Your task to perform on an android device: turn on the 24-hour format for clock Image 0: 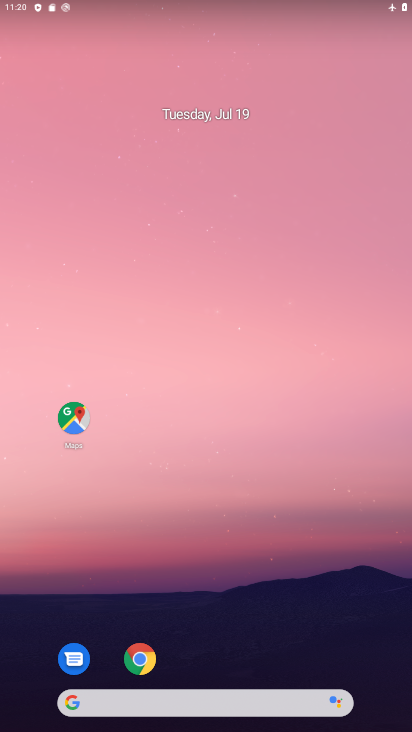
Step 0: drag from (259, 637) to (232, 204)
Your task to perform on an android device: turn on the 24-hour format for clock Image 1: 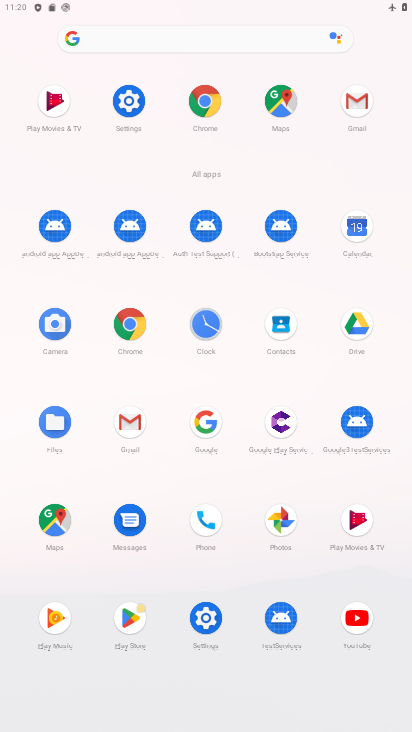
Step 1: click (206, 336)
Your task to perform on an android device: turn on the 24-hour format for clock Image 2: 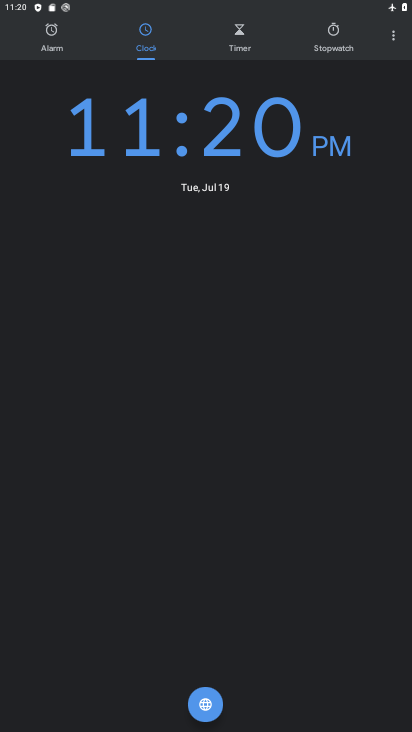
Step 2: click (399, 23)
Your task to perform on an android device: turn on the 24-hour format for clock Image 3: 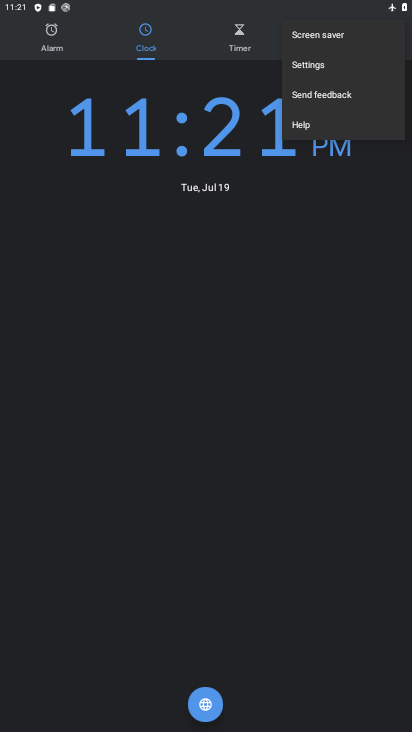
Step 3: click (315, 72)
Your task to perform on an android device: turn on the 24-hour format for clock Image 4: 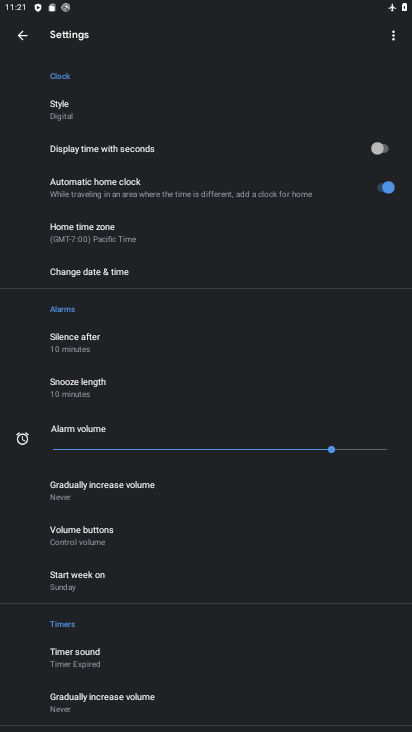
Step 4: click (104, 263)
Your task to perform on an android device: turn on the 24-hour format for clock Image 5: 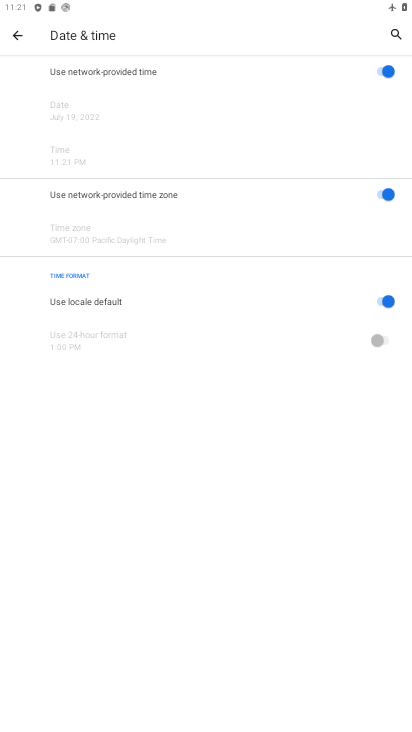
Step 5: click (386, 301)
Your task to perform on an android device: turn on the 24-hour format for clock Image 6: 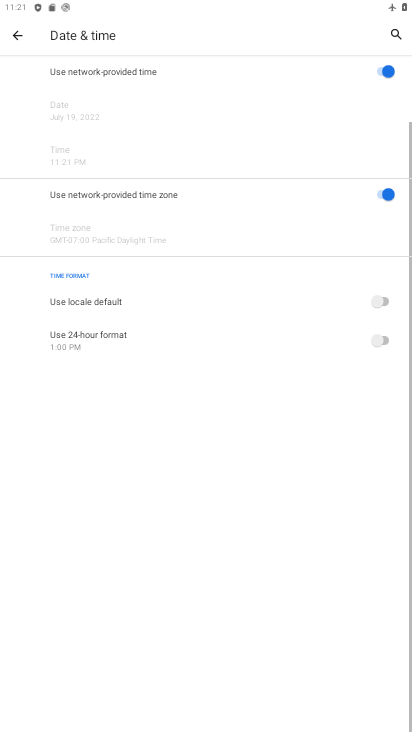
Step 6: click (383, 341)
Your task to perform on an android device: turn on the 24-hour format for clock Image 7: 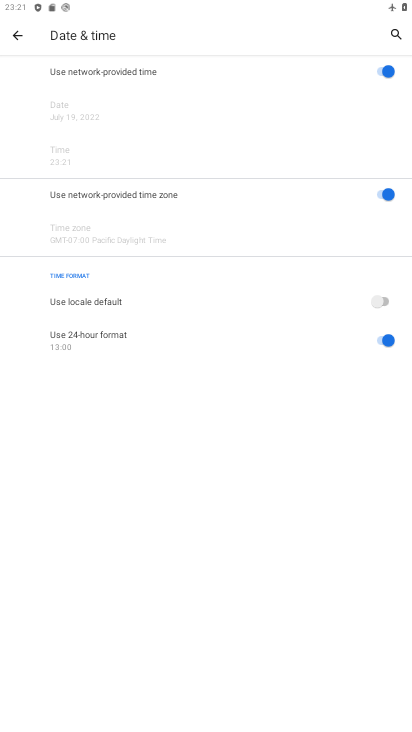
Step 7: task complete